Your task to perform on an android device: Open CNN.com Image 0: 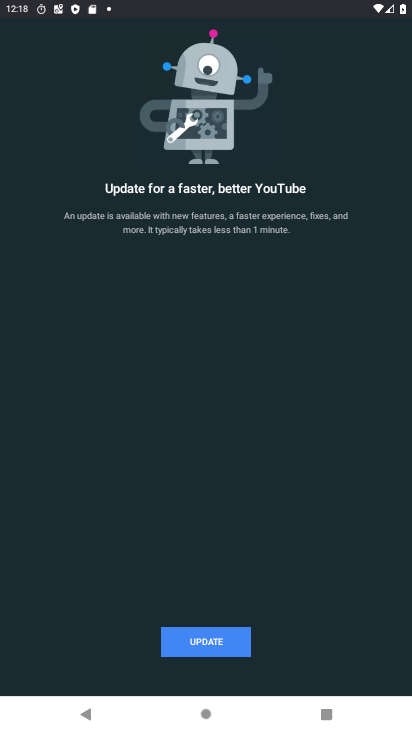
Step 0: press home button
Your task to perform on an android device: Open CNN.com Image 1: 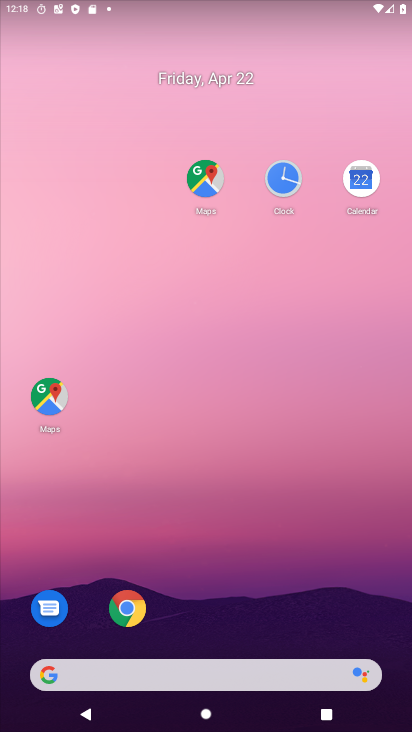
Step 1: drag from (248, 704) to (188, 196)
Your task to perform on an android device: Open CNN.com Image 2: 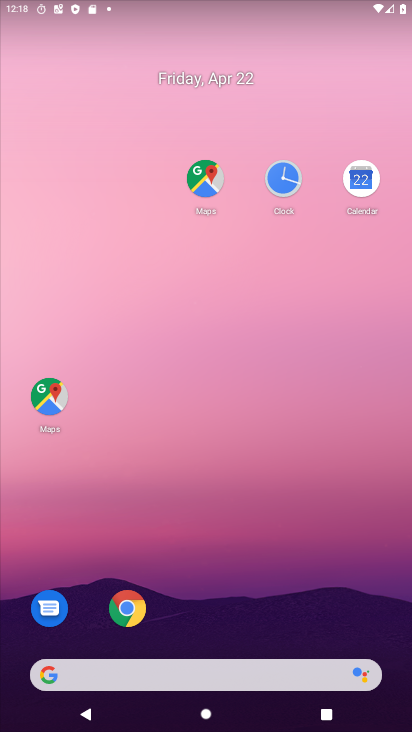
Step 2: drag from (248, 695) to (191, 105)
Your task to perform on an android device: Open CNN.com Image 3: 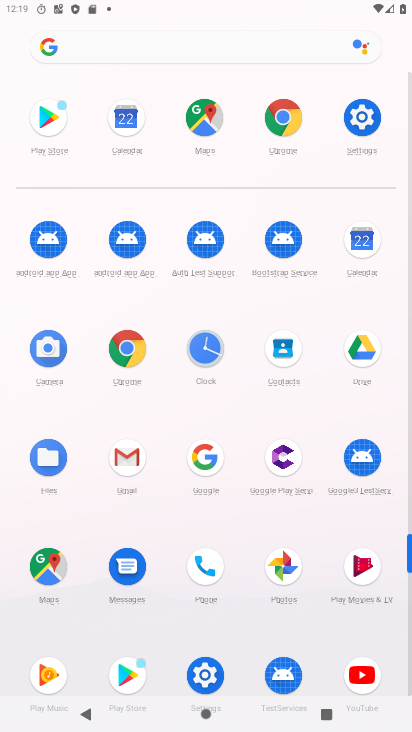
Step 3: click (366, 119)
Your task to perform on an android device: Open CNN.com Image 4: 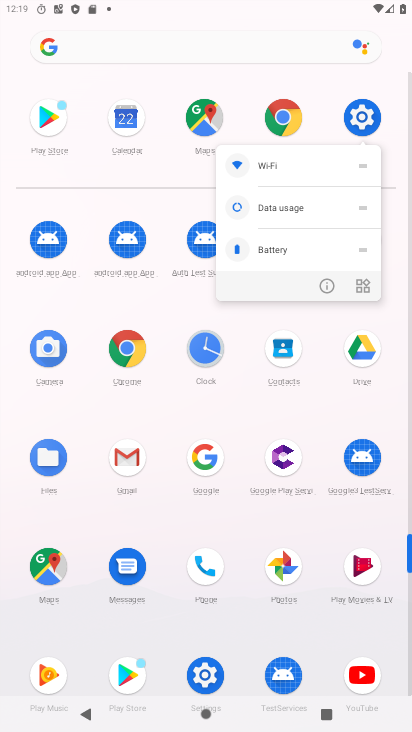
Step 4: click (282, 115)
Your task to perform on an android device: Open CNN.com Image 5: 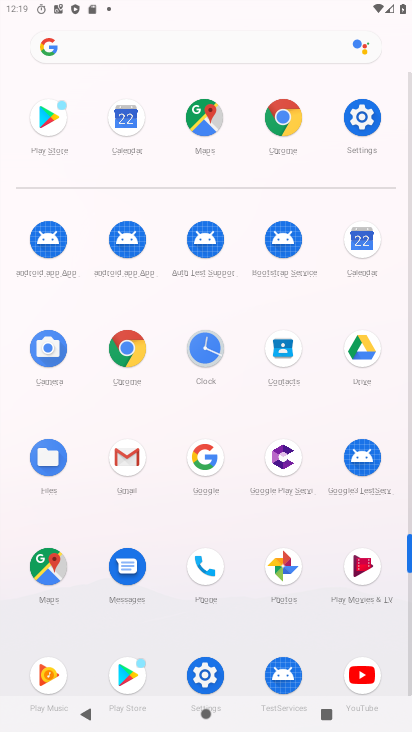
Step 5: click (281, 117)
Your task to perform on an android device: Open CNN.com Image 6: 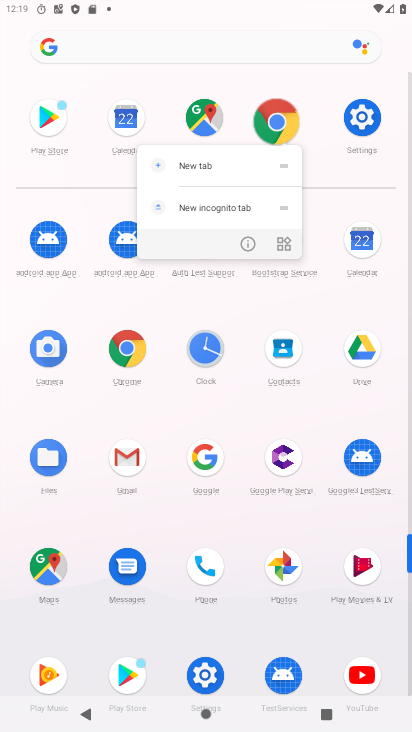
Step 6: click (274, 121)
Your task to perform on an android device: Open CNN.com Image 7: 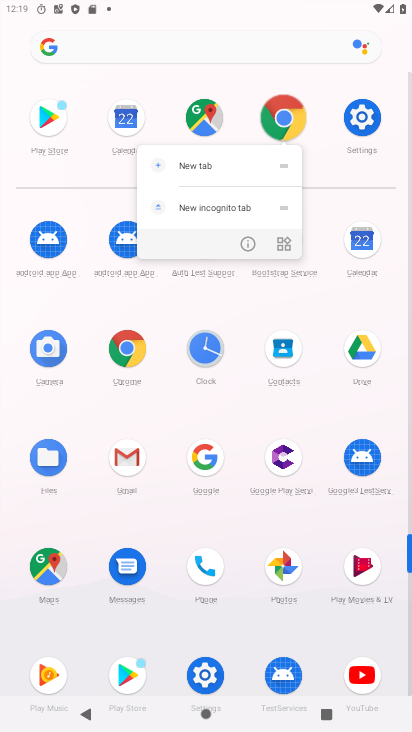
Step 7: click (274, 121)
Your task to perform on an android device: Open CNN.com Image 8: 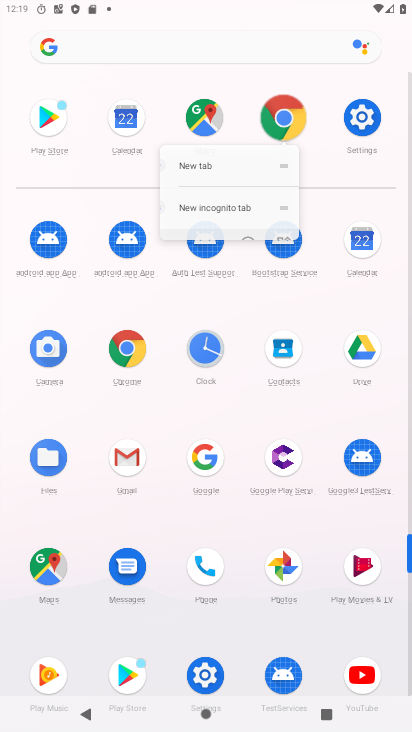
Step 8: click (275, 122)
Your task to perform on an android device: Open CNN.com Image 9: 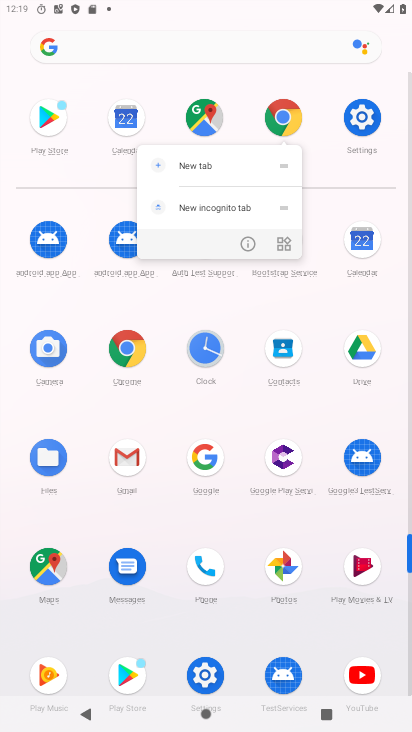
Step 9: click (278, 136)
Your task to perform on an android device: Open CNN.com Image 10: 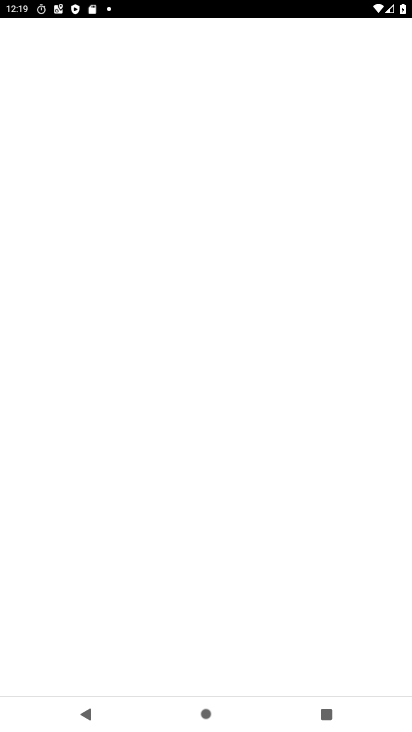
Step 10: click (278, 136)
Your task to perform on an android device: Open CNN.com Image 11: 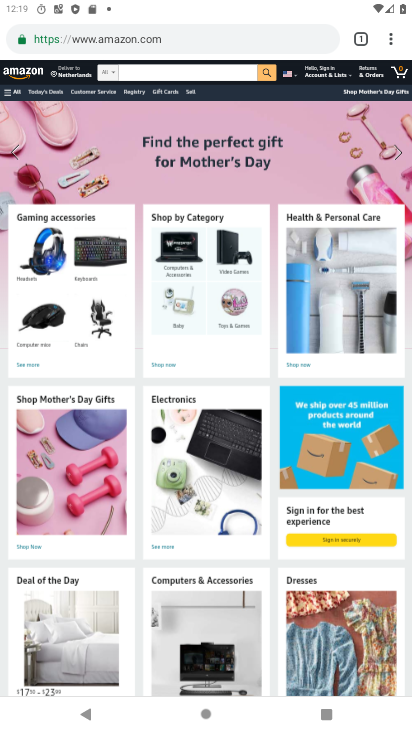
Step 11: drag from (389, 38) to (242, 124)
Your task to perform on an android device: Open CNN.com Image 12: 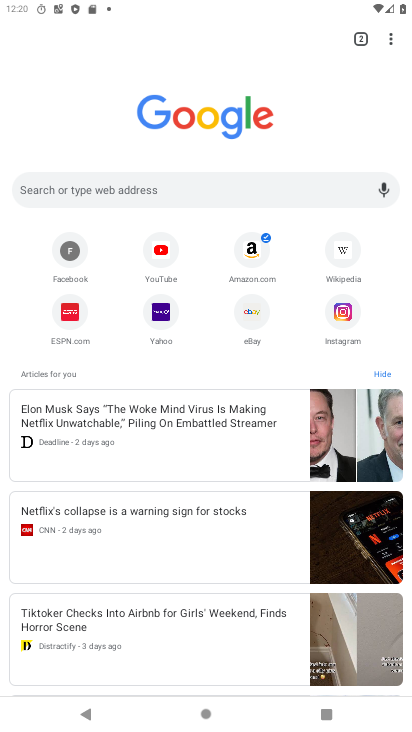
Step 12: type "www.CNN.com"
Your task to perform on an android device: Open CNN.com Image 13: 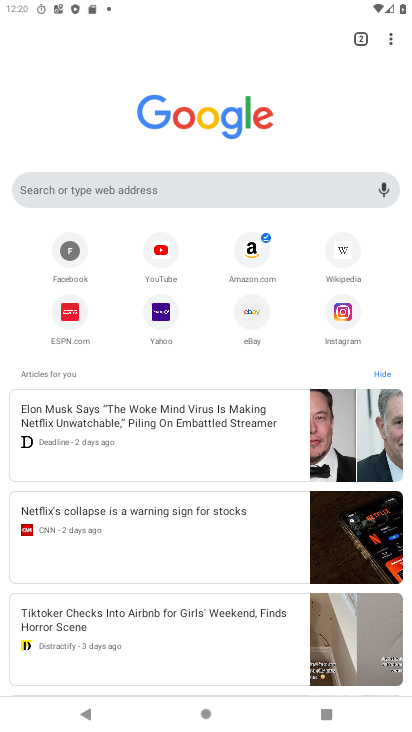
Step 13: click (52, 188)
Your task to perform on an android device: Open CNN.com Image 14: 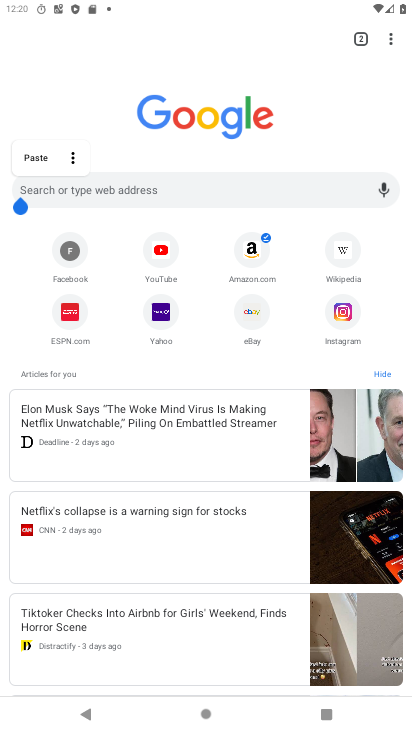
Step 14: click (52, 188)
Your task to perform on an android device: Open CNN.com Image 15: 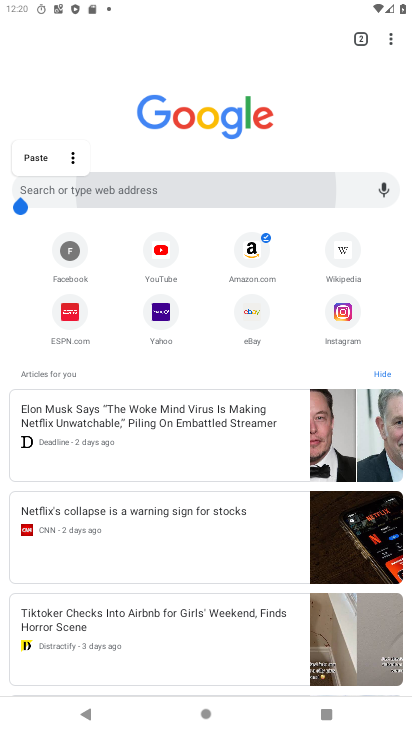
Step 15: click (52, 188)
Your task to perform on an android device: Open CNN.com Image 16: 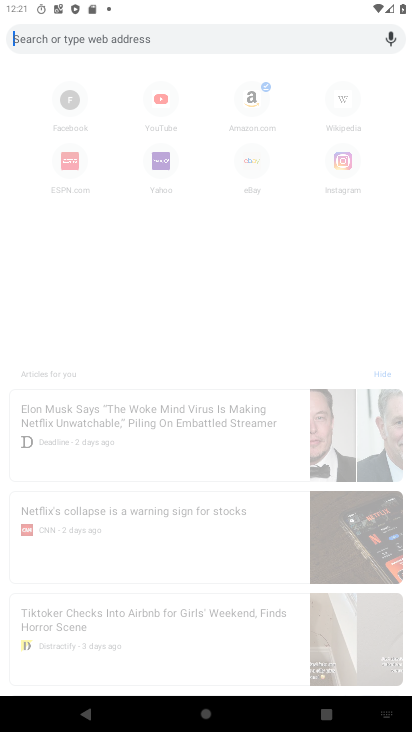
Step 16: type "www.CNN.com"
Your task to perform on an android device: Open CNN.com Image 17: 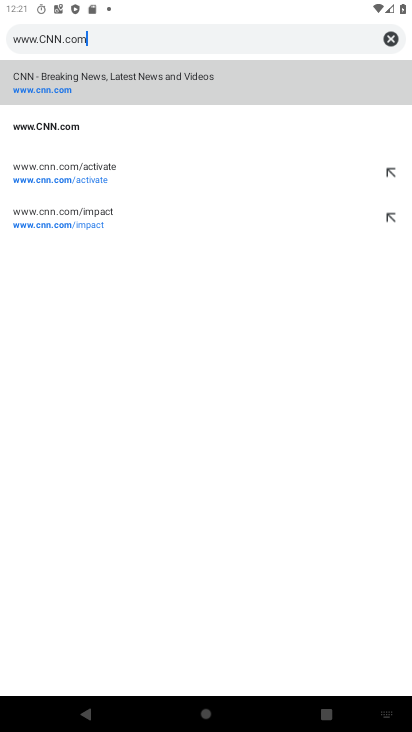
Step 17: click (47, 87)
Your task to perform on an android device: Open CNN.com Image 18: 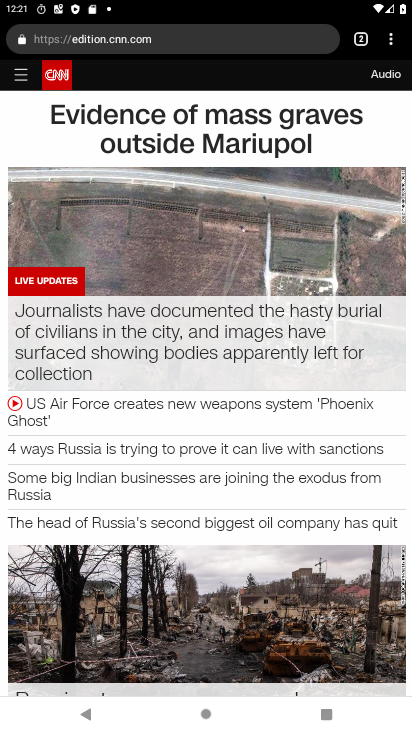
Step 18: task complete